Your task to perform on an android device: Open the Play Movies app and select the watchlist tab. Image 0: 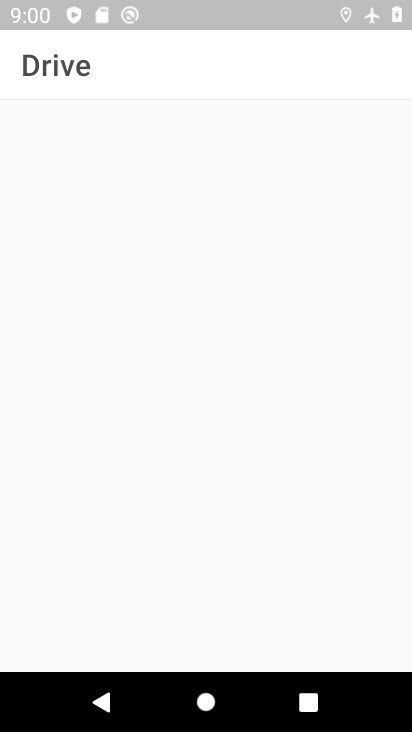
Step 0: drag from (348, 552) to (332, 452)
Your task to perform on an android device: Open the Play Movies app and select the watchlist tab. Image 1: 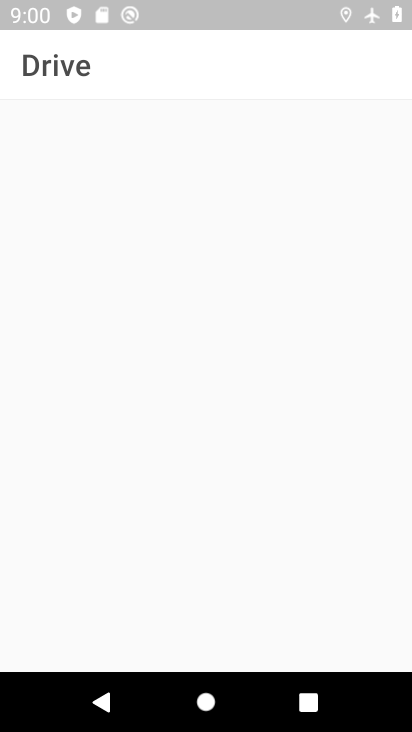
Step 1: press home button
Your task to perform on an android device: Open the Play Movies app and select the watchlist tab. Image 2: 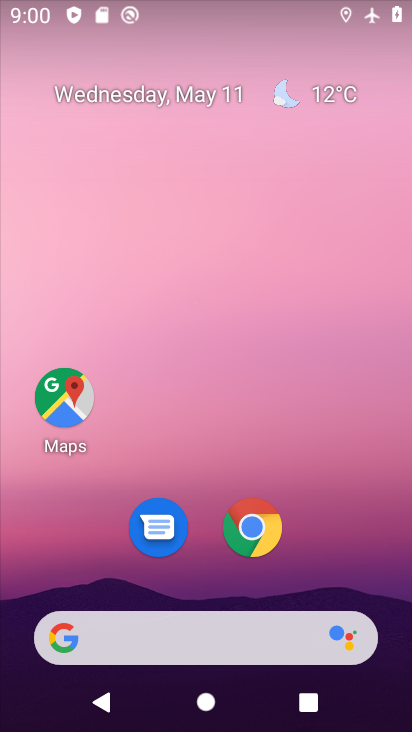
Step 2: drag from (346, 534) to (344, 105)
Your task to perform on an android device: Open the Play Movies app and select the watchlist tab. Image 3: 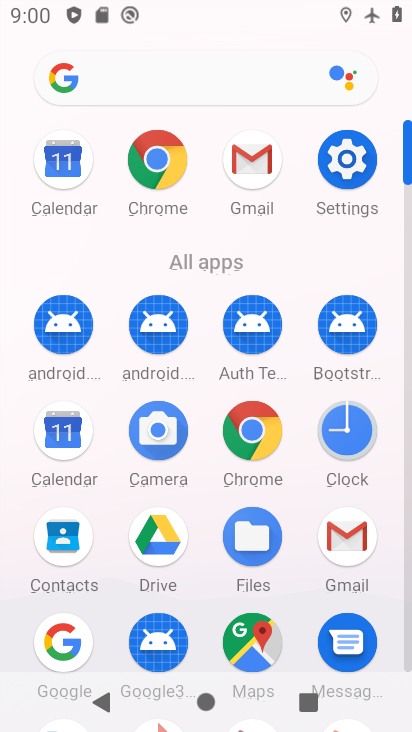
Step 3: drag from (311, 633) to (324, 279)
Your task to perform on an android device: Open the Play Movies app and select the watchlist tab. Image 4: 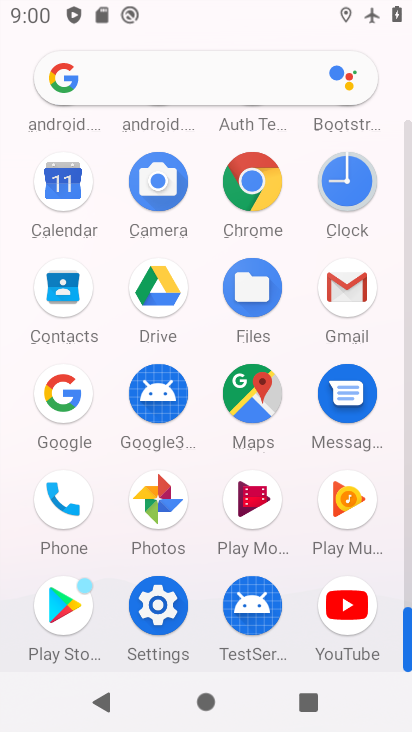
Step 4: click (256, 513)
Your task to perform on an android device: Open the Play Movies app and select the watchlist tab. Image 5: 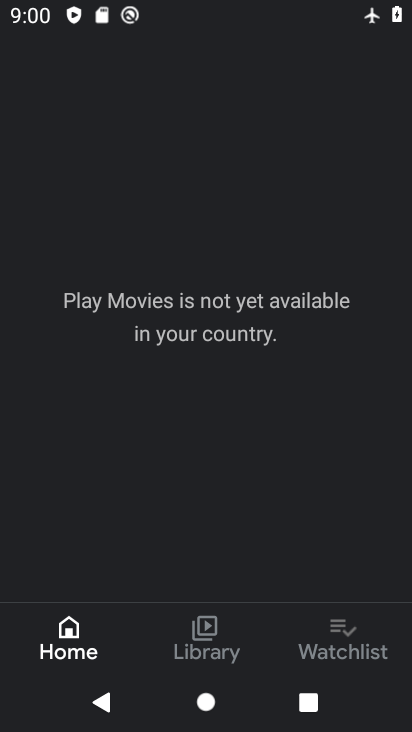
Step 5: click (330, 647)
Your task to perform on an android device: Open the Play Movies app and select the watchlist tab. Image 6: 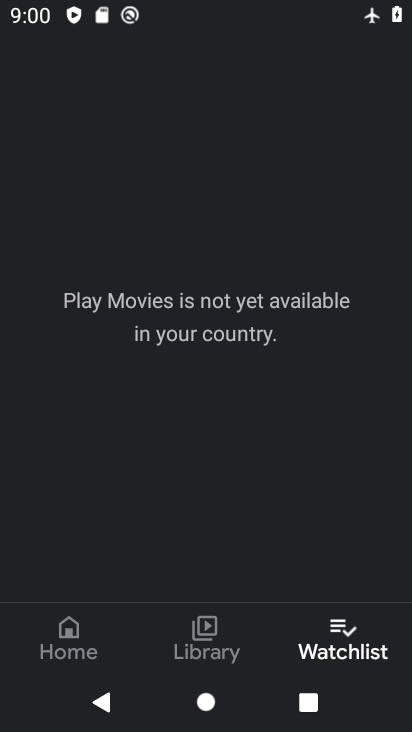
Step 6: task complete